Your task to perform on an android device: toggle priority inbox in the gmail app Image 0: 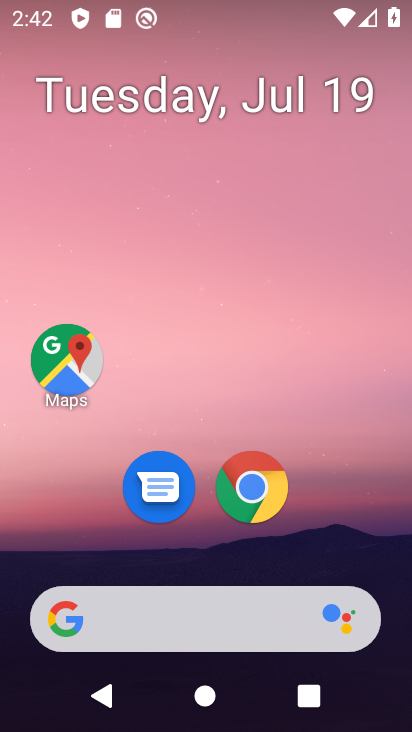
Step 0: drag from (169, 540) to (267, 1)
Your task to perform on an android device: toggle priority inbox in the gmail app Image 1: 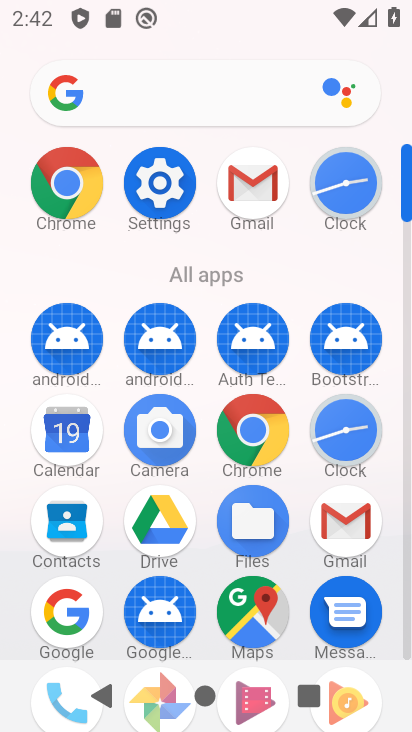
Step 1: click (272, 219)
Your task to perform on an android device: toggle priority inbox in the gmail app Image 2: 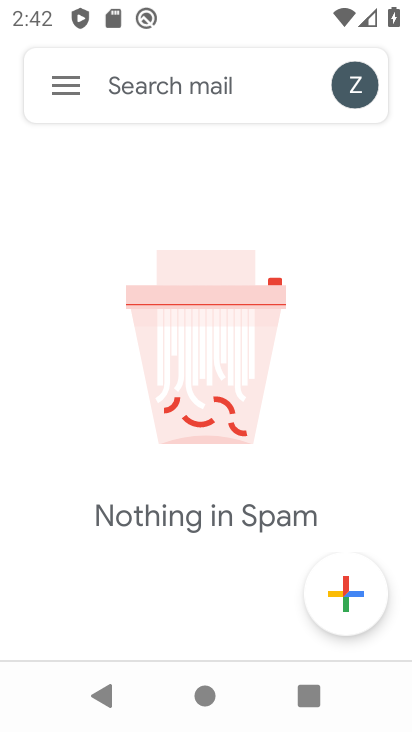
Step 2: click (83, 84)
Your task to perform on an android device: toggle priority inbox in the gmail app Image 3: 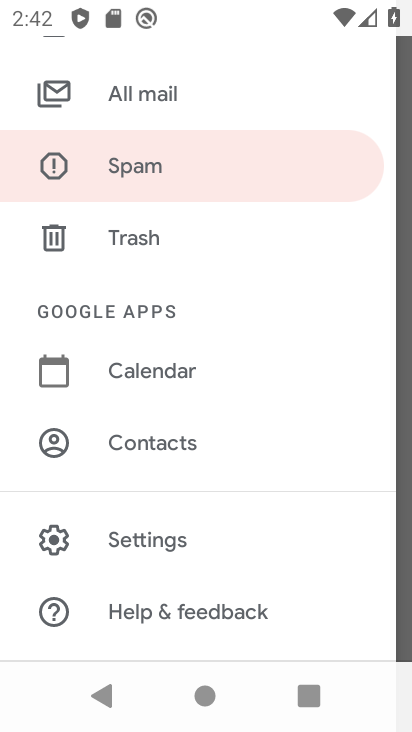
Step 3: click (140, 539)
Your task to perform on an android device: toggle priority inbox in the gmail app Image 4: 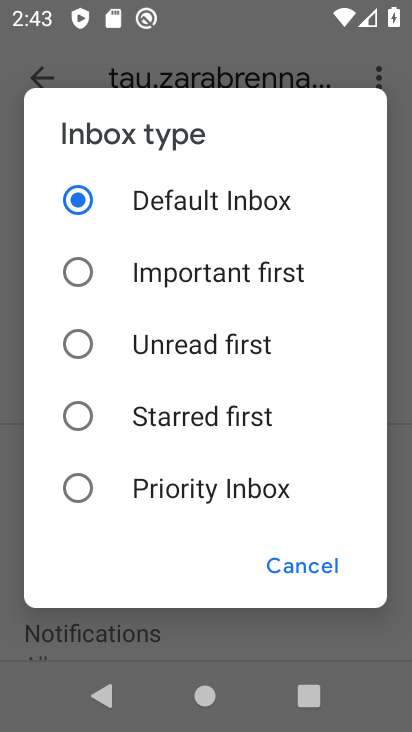
Step 4: click (136, 490)
Your task to perform on an android device: toggle priority inbox in the gmail app Image 5: 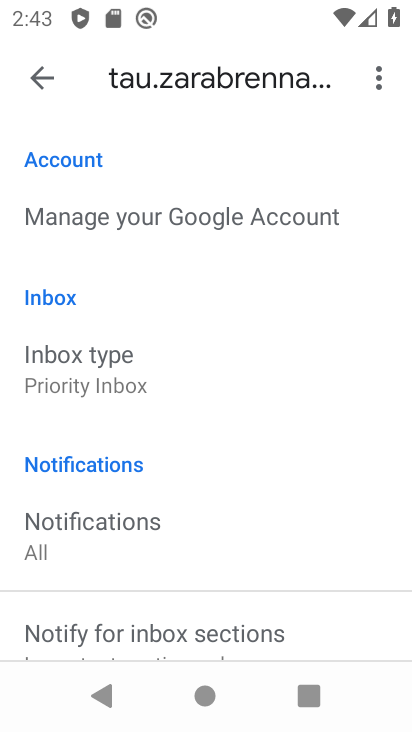
Step 5: task complete